Your task to perform on an android device: What is the news today? Image 0: 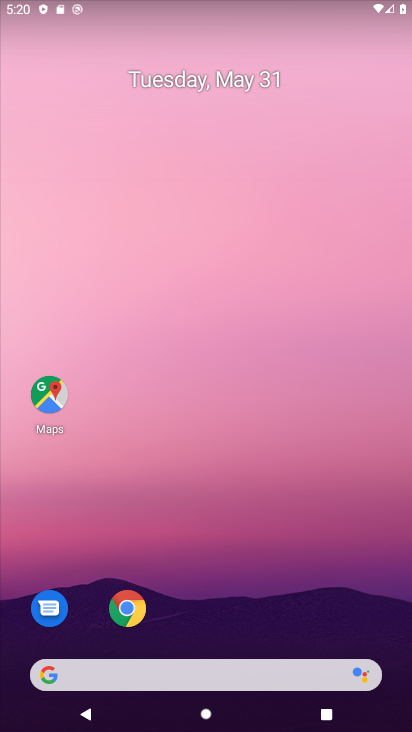
Step 0: drag from (230, 660) to (249, 56)
Your task to perform on an android device: What is the news today? Image 1: 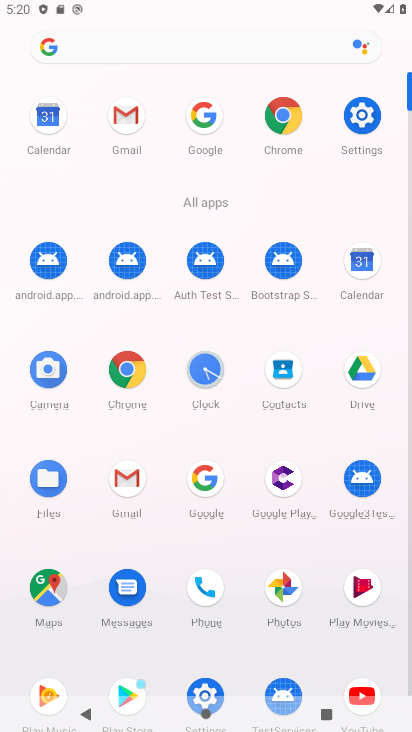
Step 1: click (208, 475)
Your task to perform on an android device: What is the news today? Image 2: 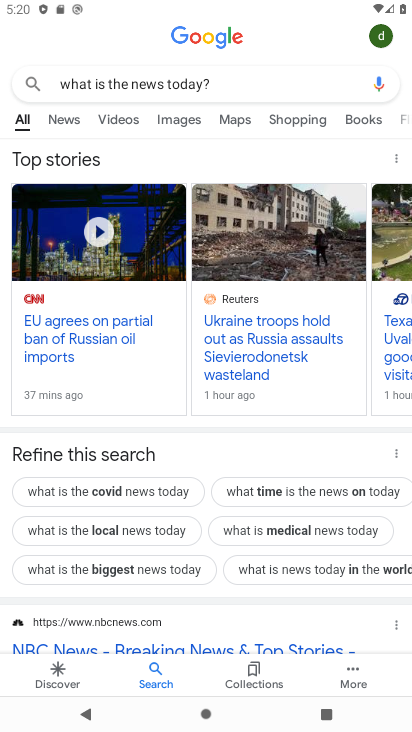
Step 2: click (204, 90)
Your task to perform on an android device: What is the news today? Image 3: 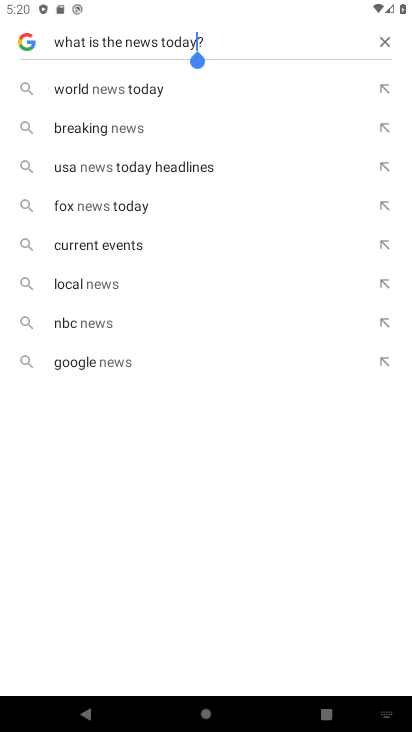
Step 3: click (383, 43)
Your task to perform on an android device: What is the news today? Image 4: 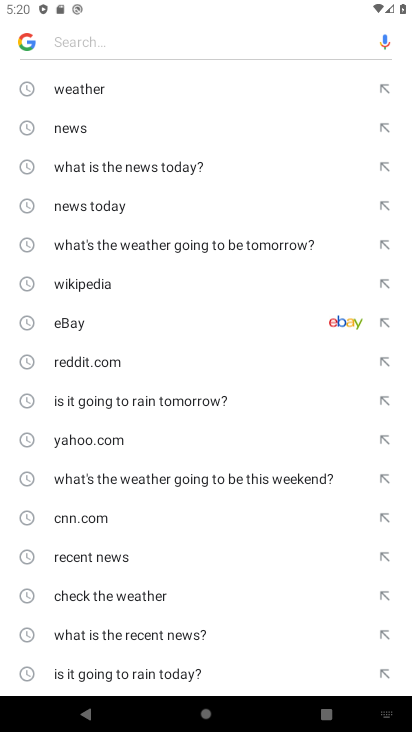
Step 4: click (159, 171)
Your task to perform on an android device: What is the news today? Image 5: 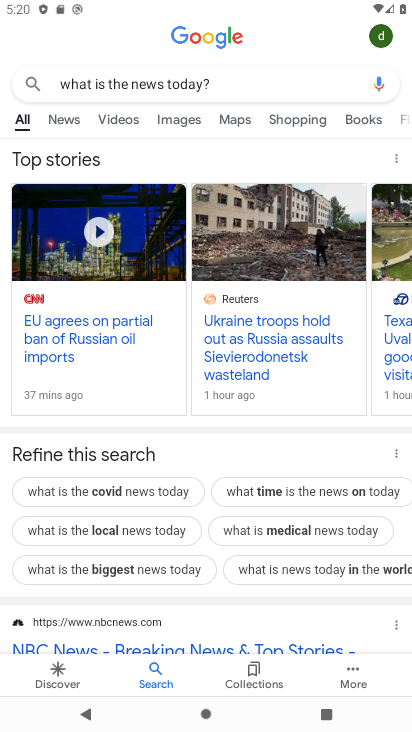
Step 5: task complete